Your task to perform on an android device: turn on priority inbox in the gmail app Image 0: 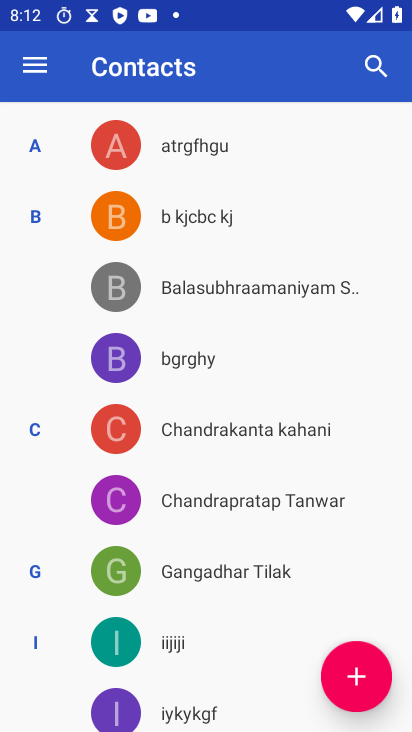
Step 0: press home button
Your task to perform on an android device: turn on priority inbox in the gmail app Image 1: 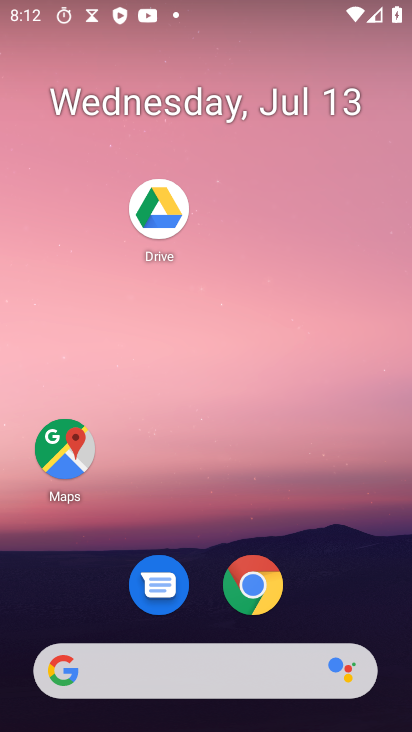
Step 1: drag from (121, 664) to (225, 234)
Your task to perform on an android device: turn on priority inbox in the gmail app Image 2: 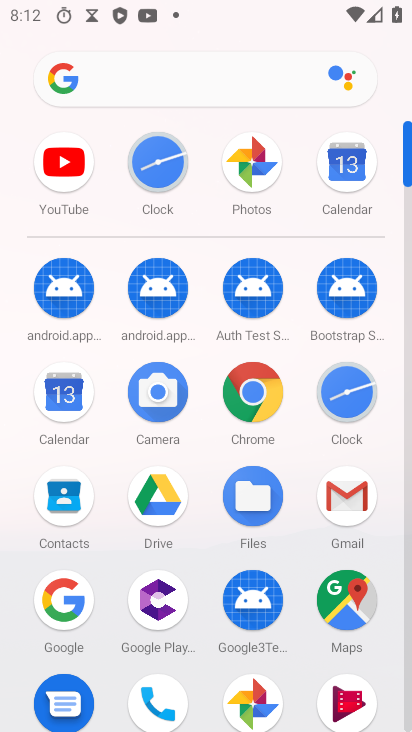
Step 2: click (344, 496)
Your task to perform on an android device: turn on priority inbox in the gmail app Image 3: 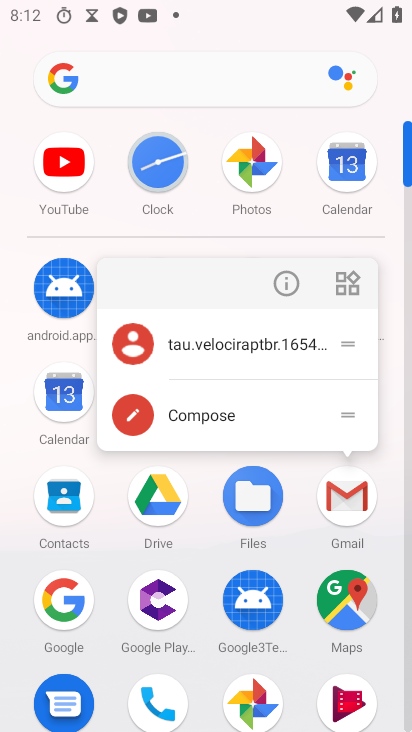
Step 3: click (356, 512)
Your task to perform on an android device: turn on priority inbox in the gmail app Image 4: 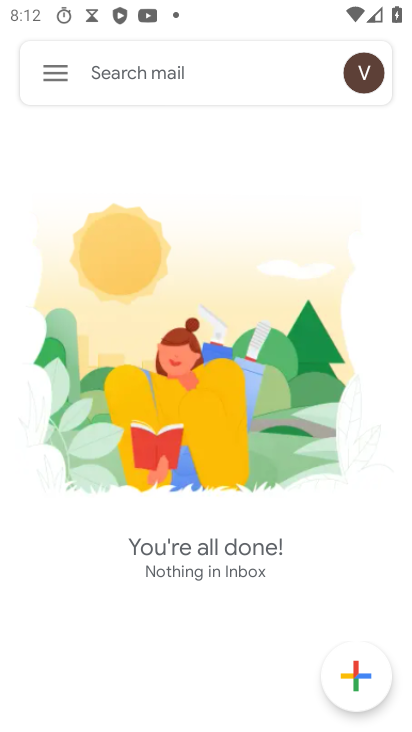
Step 4: click (54, 66)
Your task to perform on an android device: turn on priority inbox in the gmail app Image 5: 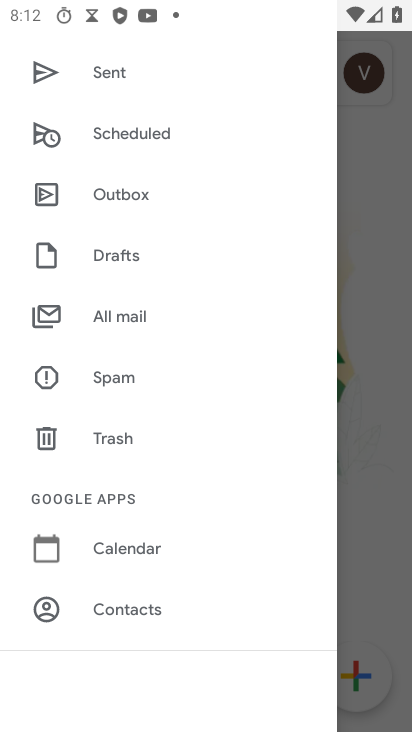
Step 5: drag from (201, 582) to (197, 110)
Your task to perform on an android device: turn on priority inbox in the gmail app Image 6: 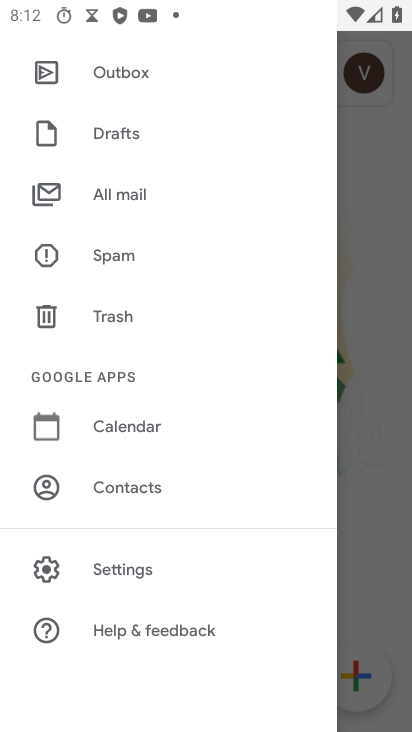
Step 6: click (127, 569)
Your task to perform on an android device: turn on priority inbox in the gmail app Image 7: 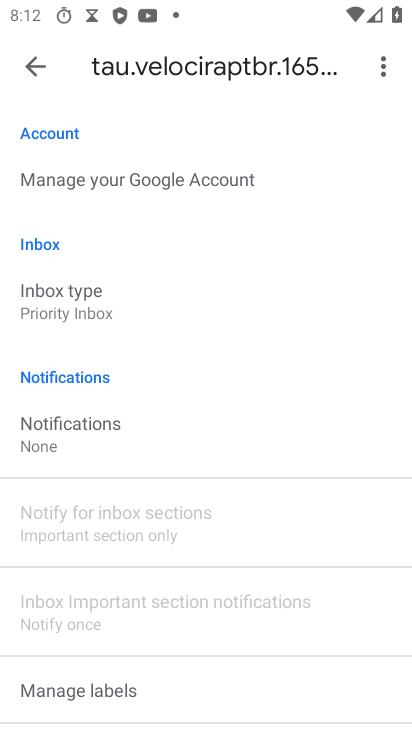
Step 7: click (102, 304)
Your task to perform on an android device: turn on priority inbox in the gmail app Image 8: 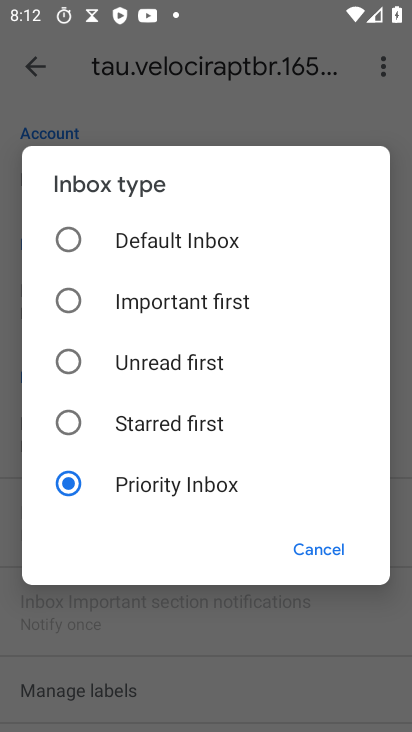
Step 8: task complete